Your task to perform on an android device: clear all cookies in the chrome app Image 0: 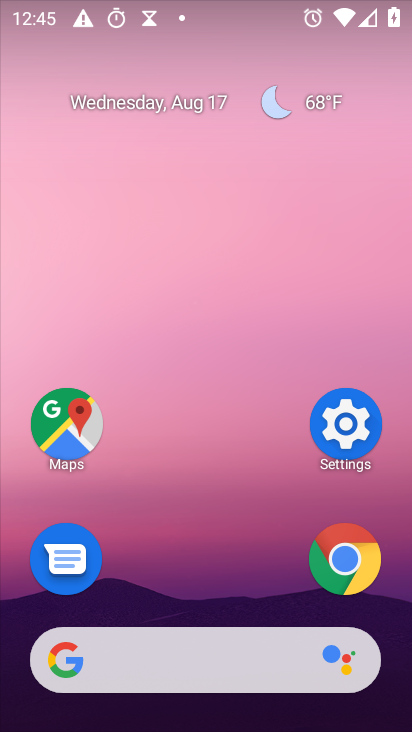
Step 0: click (353, 555)
Your task to perform on an android device: clear all cookies in the chrome app Image 1: 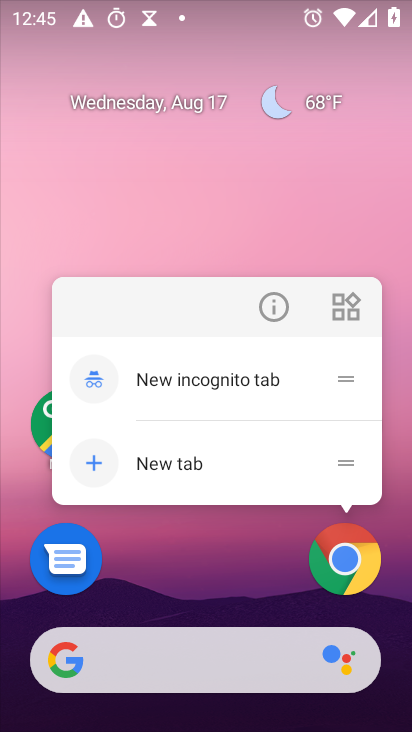
Step 1: click (353, 556)
Your task to perform on an android device: clear all cookies in the chrome app Image 2: 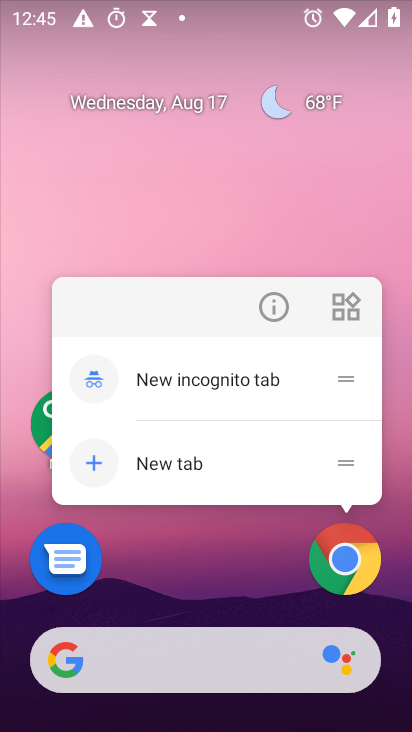
Step 2: click (352, 556)
Your task to perform on an android device: clear all cookies in the chrome app Image 3: 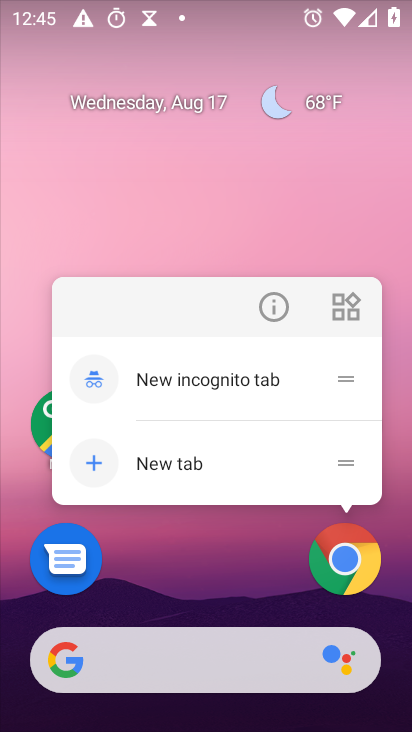
Step 3: click (352, 556)
Your task to perform on an android device: clear all cookies in the chrome app Image 4: 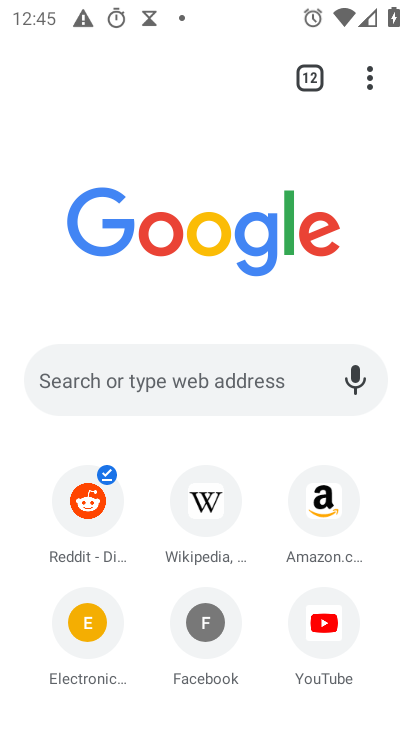
Step 4: drag from (368, 77) to (194, 620)
Your task to perform on an android device: clear all cookies in the chrome app Image 5: 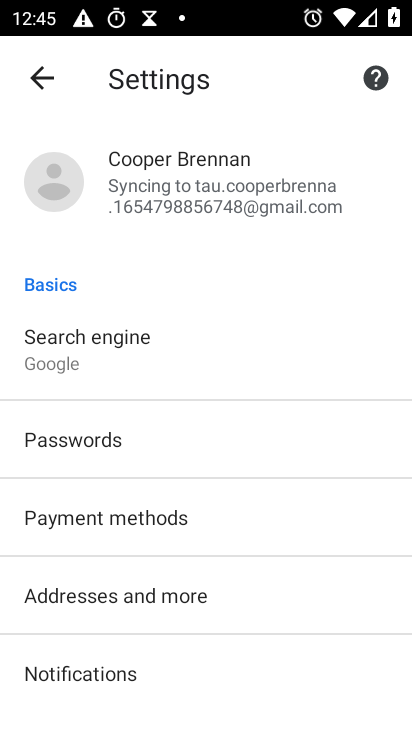
Step 5: drag from (207, 629) to (249, 284)
Your task to perform on an android device: clear all cookies in the chrome app Image 6: 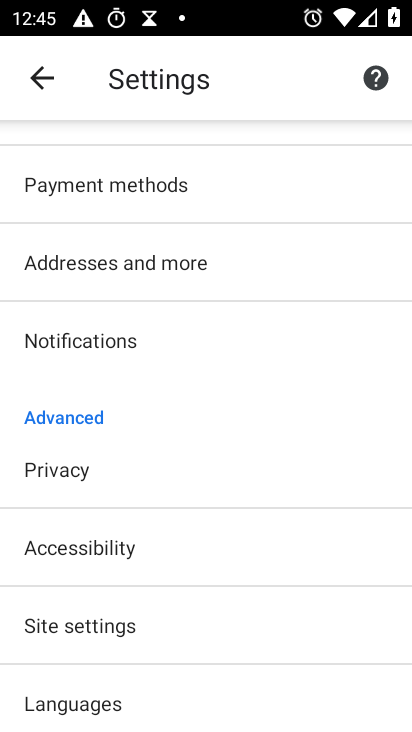
Step 6: click (56, 460)
Your task to perform on an android device: clear all cookies in the chrome app Image 7: 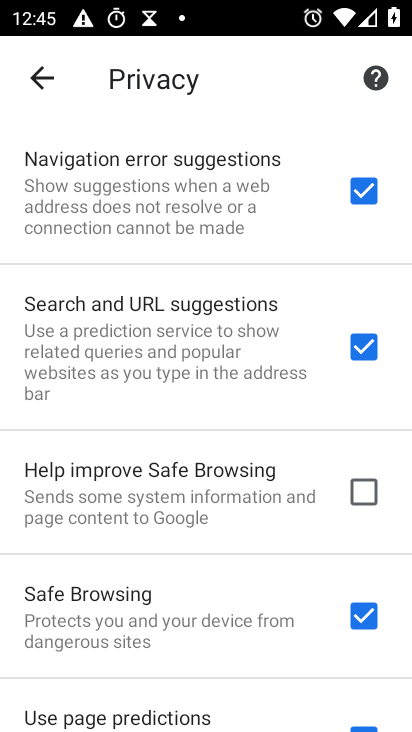
Step 7: drag from (146, 672) to (220, 79)
Your task to perform on an android device: clear all cookies in the chrome app Image 8: 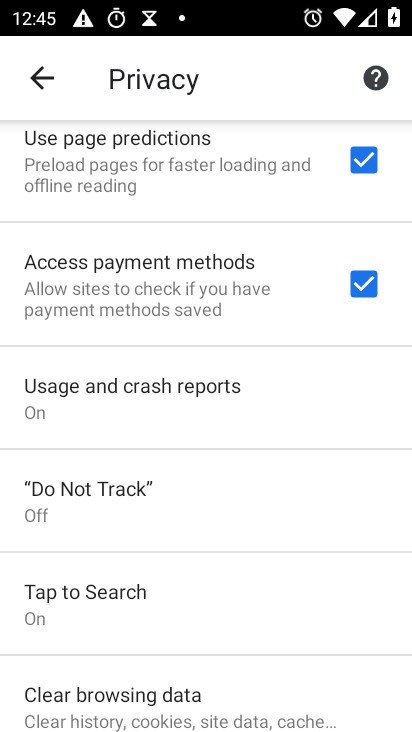
Step 8: click (183, 697)
Your task to perform on an android device: clear all cookies in the chrome app Image 9: 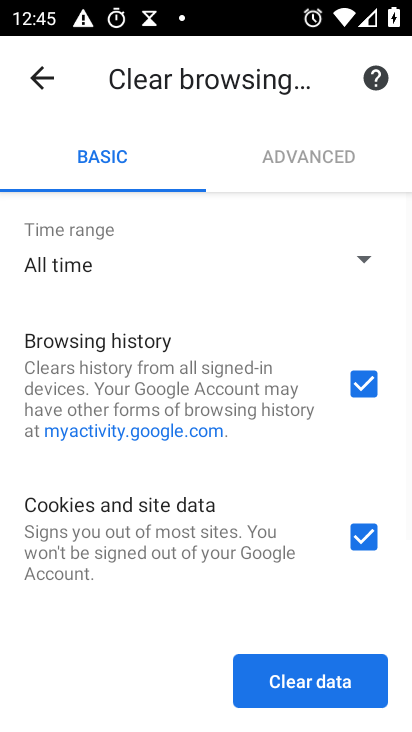
Step 9: click (352, 387)
Your task to perform on an android device: clear all cookies in the chrome app Image 10: 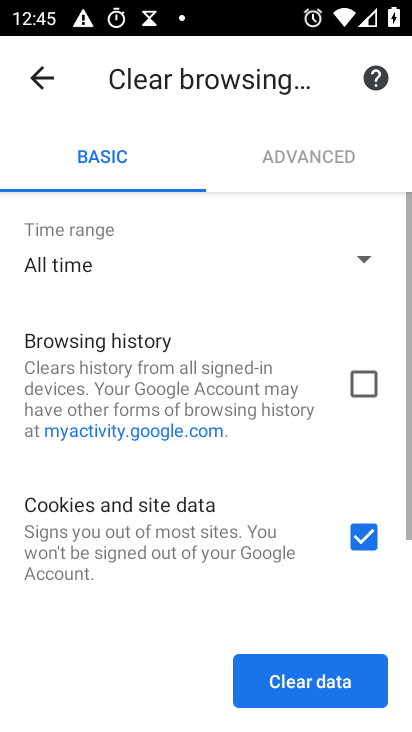
Step 10: drag from (184, 601) to (265, 282)
Your task to perform on an android device: clear all cookies in the chrome app Image 11: 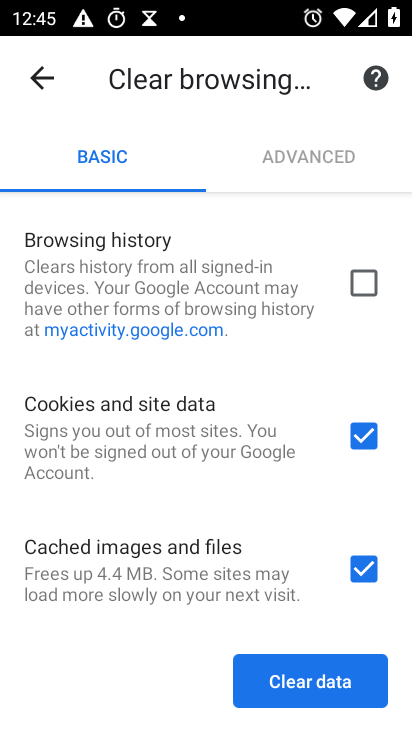
Step 11: click (366, 576)
Your task to perform on an android device: clear all cookies in the chrome app Image 12: 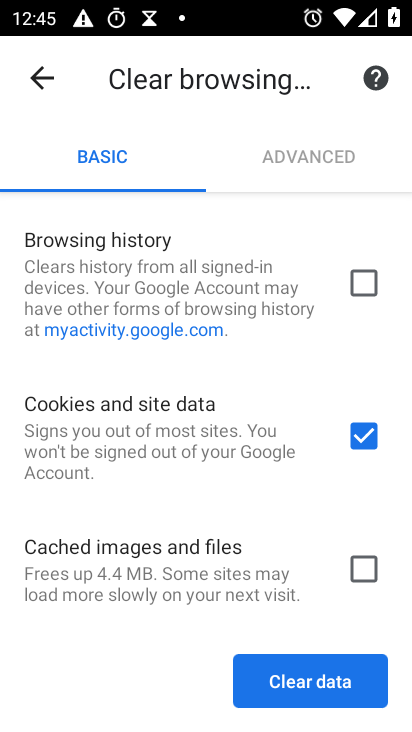
Step 12: click (304, 679)
Your task to perform on an android device: clear all cookies in the chrome app Image 13: 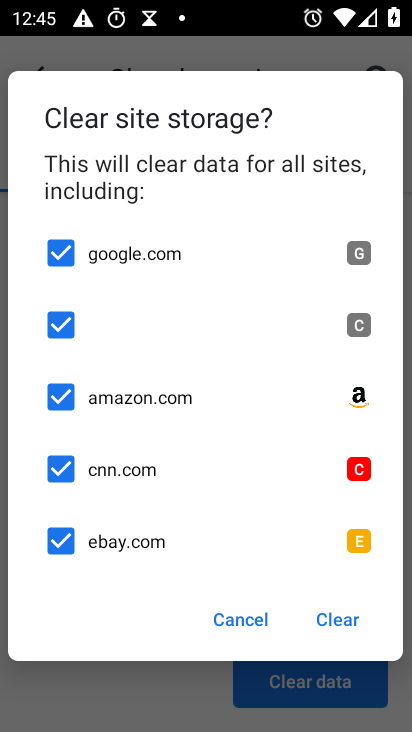
Step 13: click (339, 623)
Your task to perform on an android device: clear all cookies in the chrome app Image 14: 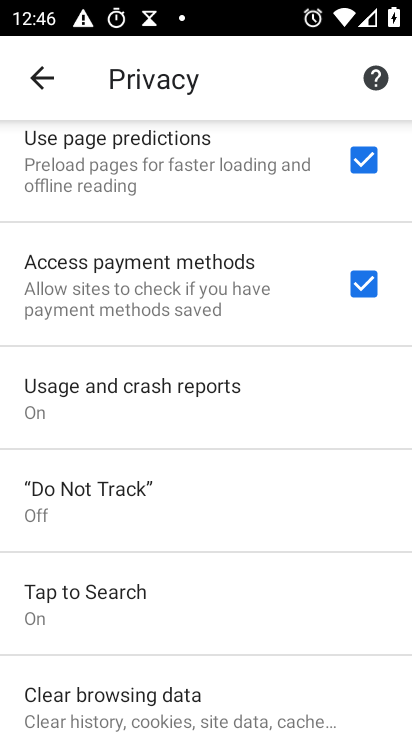
Step 14: task complete